Your task to perform on an android device: move an email to a new category in the gmail app Image 0: 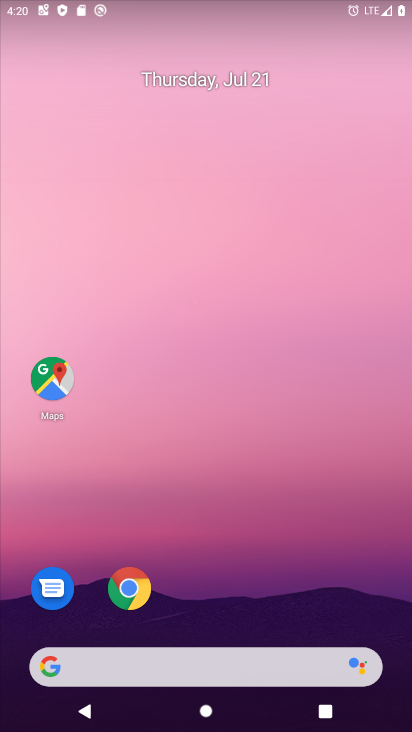
Step 0: drag from (302, 595) to (267, 81)
Your task to perform on an android device: move an email to a new category in the gmail app Image 1: 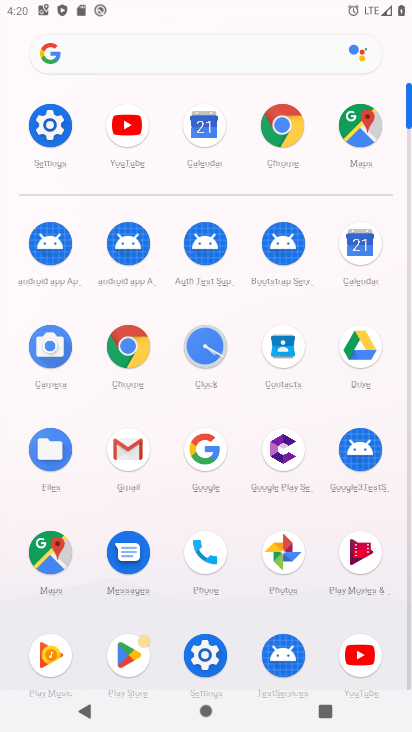
Step 1: click (124, 451)
Your task to perform on an android device: move an email to a new category in the gmail app Image 2: 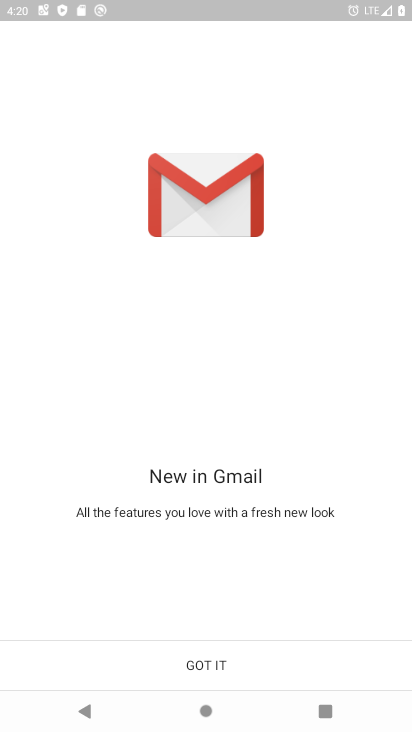
Step 2: click (221, 656)
Your task to perform on an android device: move an email to a new category in the gmail app Image 3: 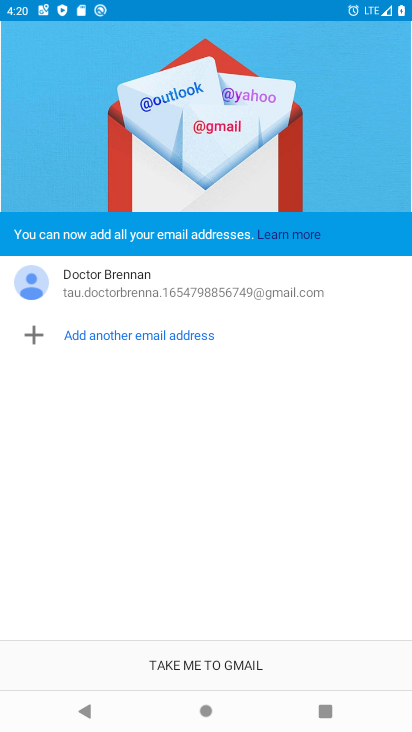
Step 3: click (221, 656)
Your task to perform on an android device: move an email to a new category in the gmail app Image 4: 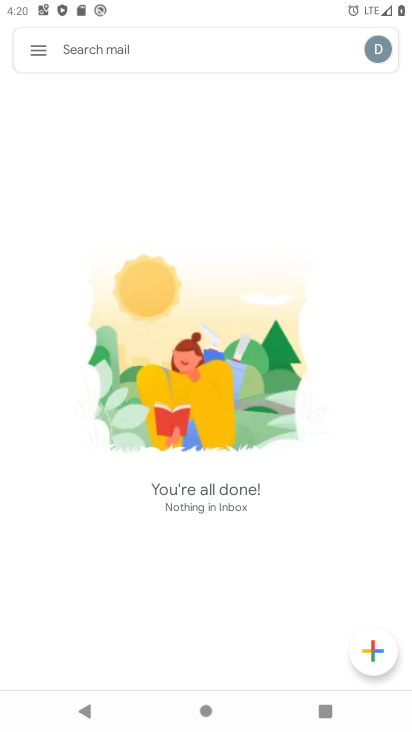
Step 4: task complete